Your task to perform on an android device: When is my next meeting? Image 0: 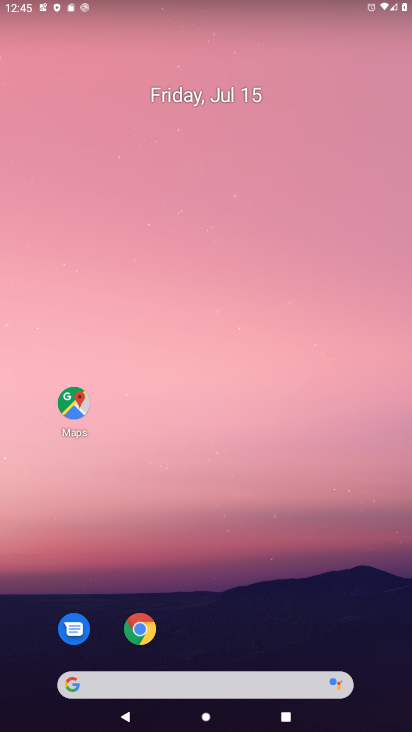
Step 0: drag from (334, 642) to (397, 408)
Your task to perform on an android device: When is my next meeting? Image 1: 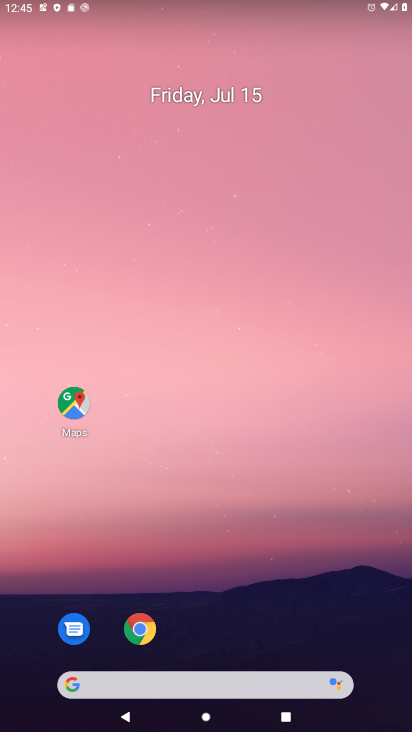
Step 1: drag from (247, 633) to (406, 153)
Your task to perform on an android device: When is my next meeting? Image 2: 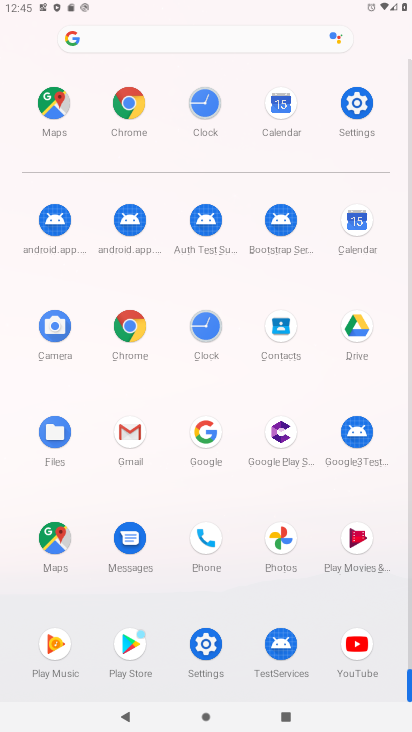
Step 2: click (356, 226)
Your task to perform on an android device: When is my next meeting? Image 3: 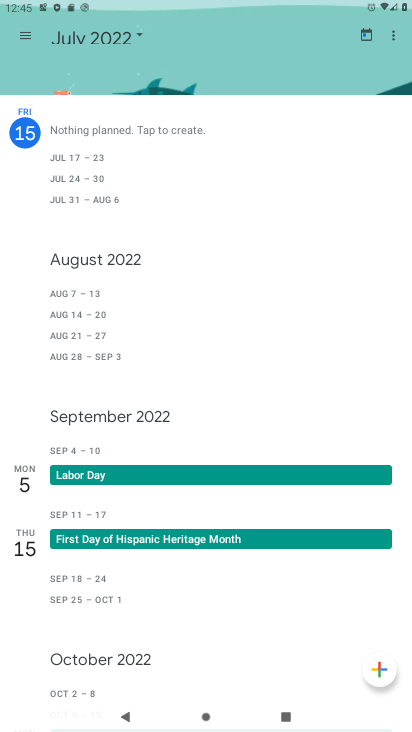
Step 3: click (31, 30)
Your task to perform on an android device: When is my next meeting? Image 4: 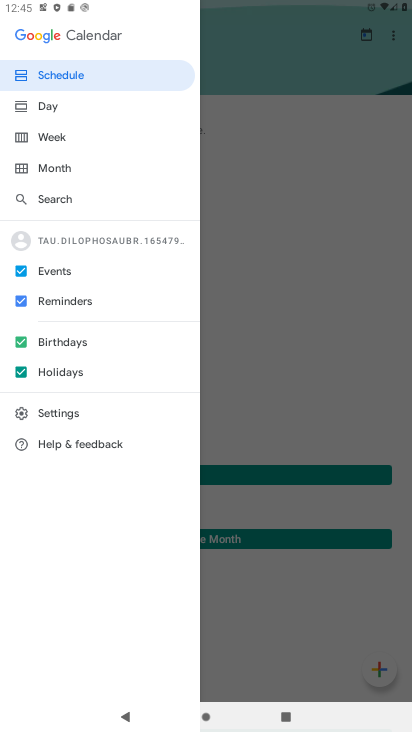
Step 4: click (60, 75)
Your task to perform on an android device: When is my next meeting? Image 5: 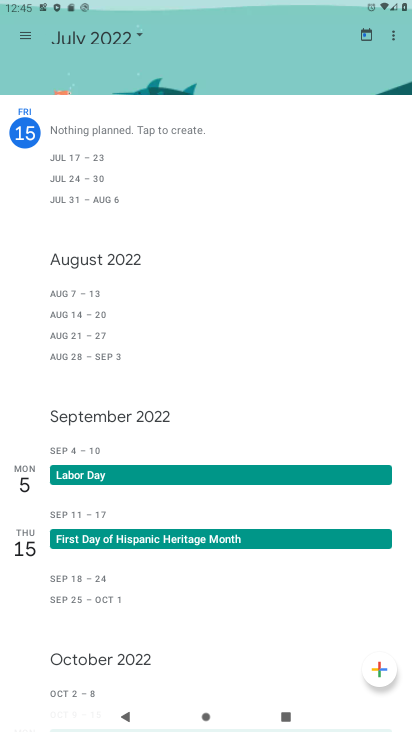
Step 5: task complete